Your task to perform on an android device: open the mobile data screen to see how much data has been used Image 0: 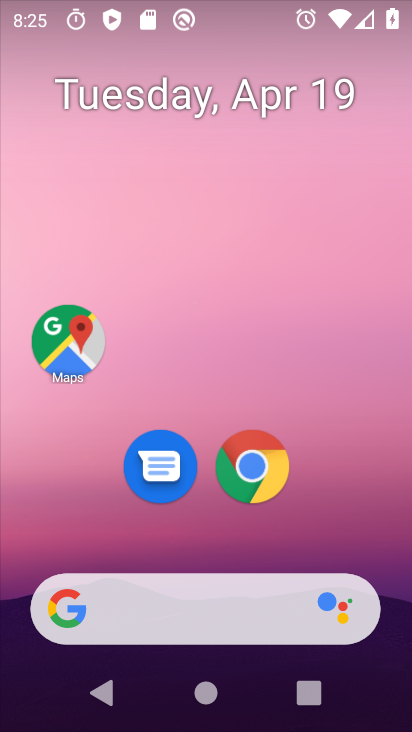
Step 0: click (255, 477)
Your task to perform on an android device: open the mobile data screen to see how much data has been used Image 1: 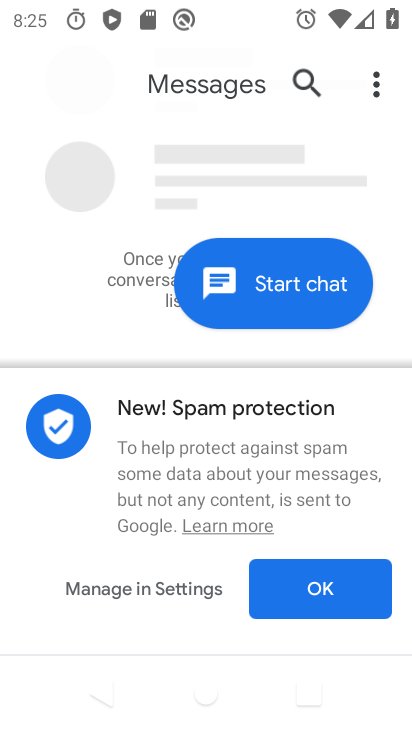
Step 1: press home button
Your task to perform on an android device: open the mobile data screen to see how much data has been used Image 2: 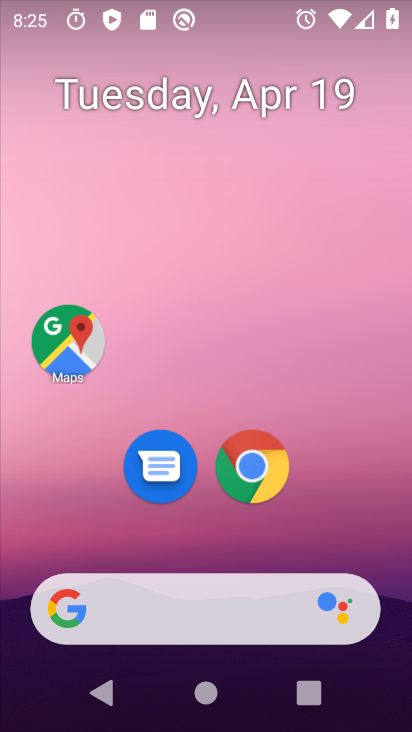
Step 2: click (275, 473)
Your task to perform on an android device: open the mobile data screen to see how much data has been used Image 3: 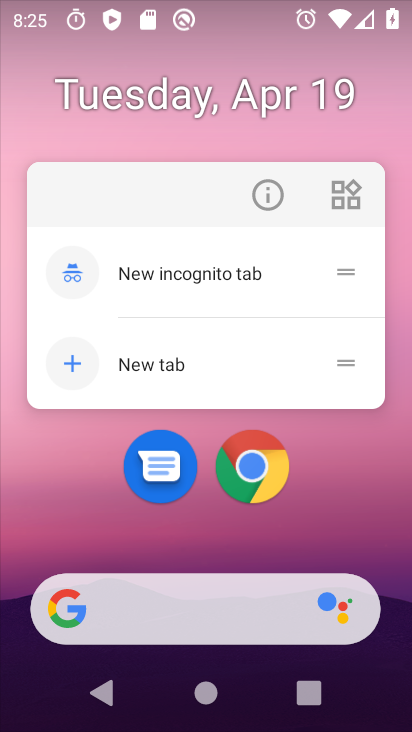
Step 3: click (275, 473)
Your task to perform on an android device: open the mobile data screen to see how much data has been used Image 4: 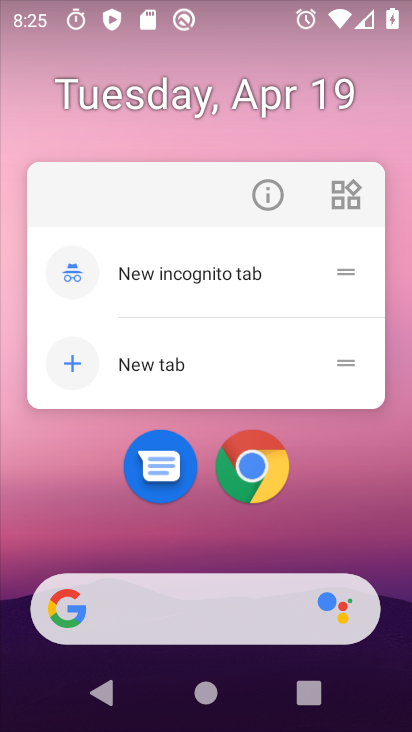
Step 4: click (275, 473)
Your task to perform on an android device: open the mobile data screen to see how much data has been used Image 5: 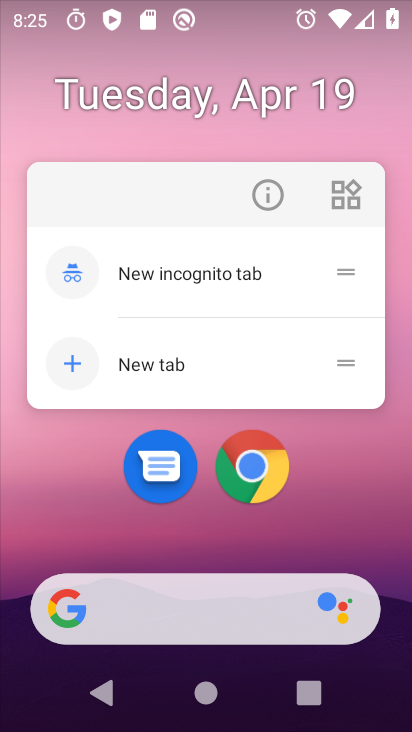
Step 5: click (275, 473)
Your task to perform on an android device: open the mobile data screen to see how much data has been used Image 6: 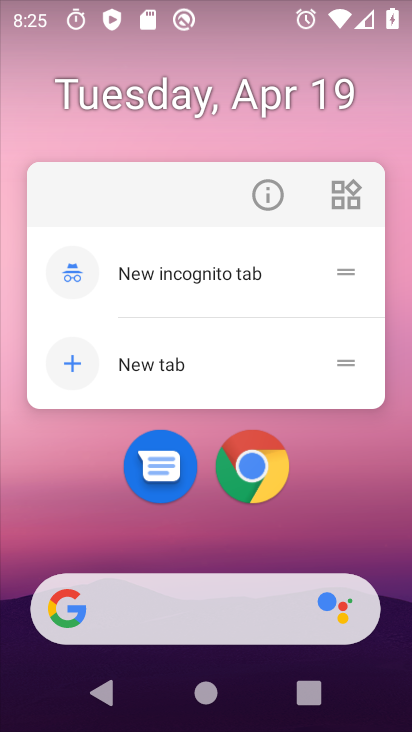
Step 6: click (254, 468)
Your task to perform on an android device: open the mobile data screen to see how much data has been used Image 7: 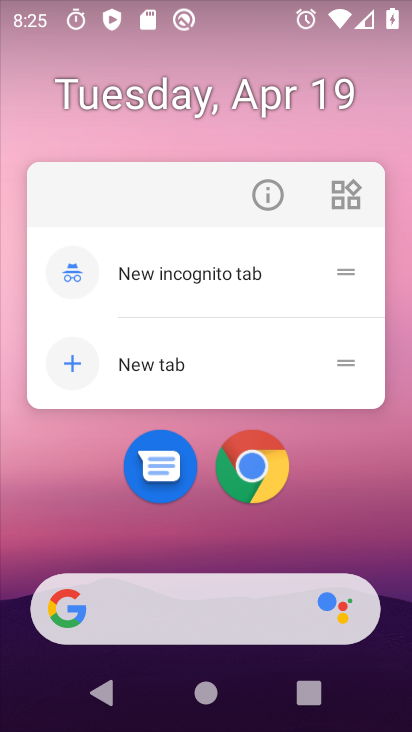
Step 7: click (254, 468)
Your task to perform on an android device: open the mobile data screen to see how much data has been used Image 8: 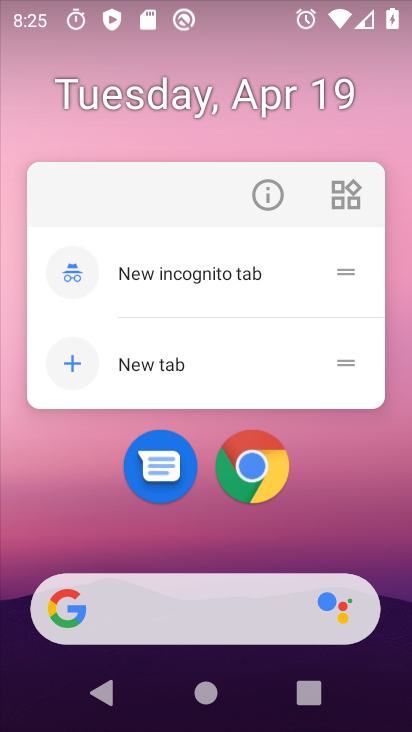
Step 8: click (254, 468)
Your task to perform on an android device: open the mobile data screen to see how much data has been used Image 9: 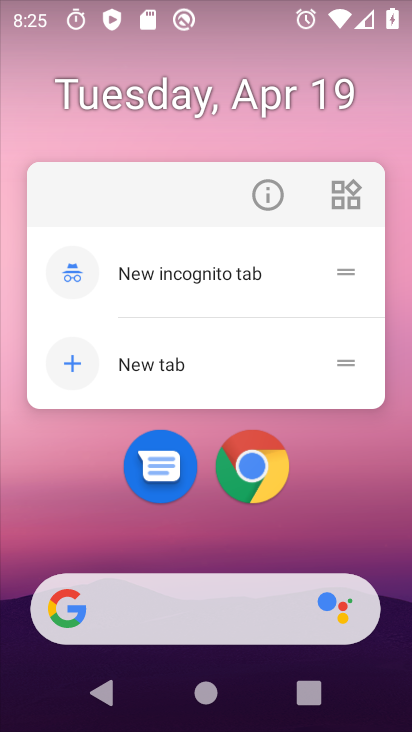
Step 9: click (254, 468)
Your task to perform on an android device: open the mobile data screen to see how much data has been used Image 10: 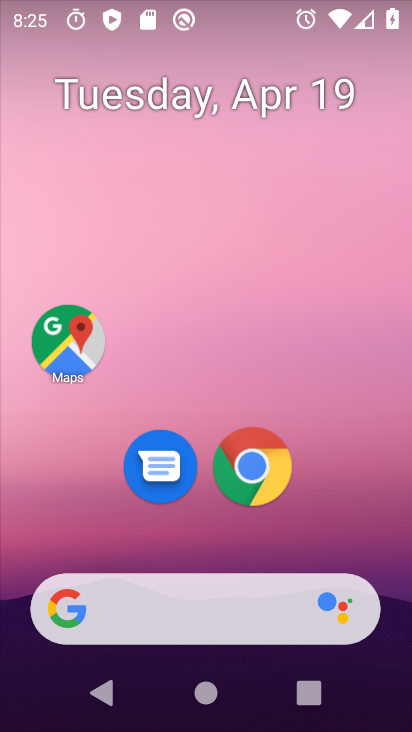
Step 10: click (254, 468)
Your task to perform on an android device: open the mobile data screen to see how much data has been used Image 11: 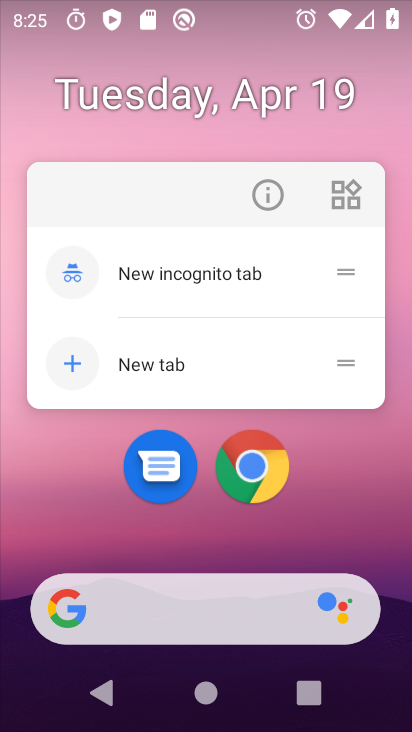
Step 11: click (254, 468)
Your task to perform on an android device: open the mobile data screen to see how much data has been used Image 12: 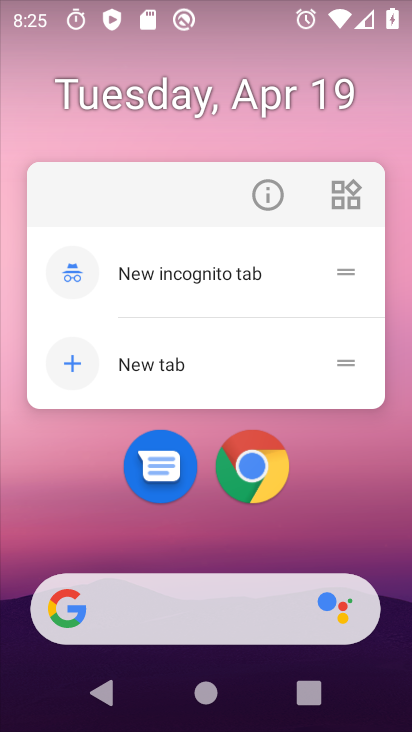
Step 12: click (254, 468)
Your task to perform on an android device: open the mobile data screen to see how much data has been used Image 13: 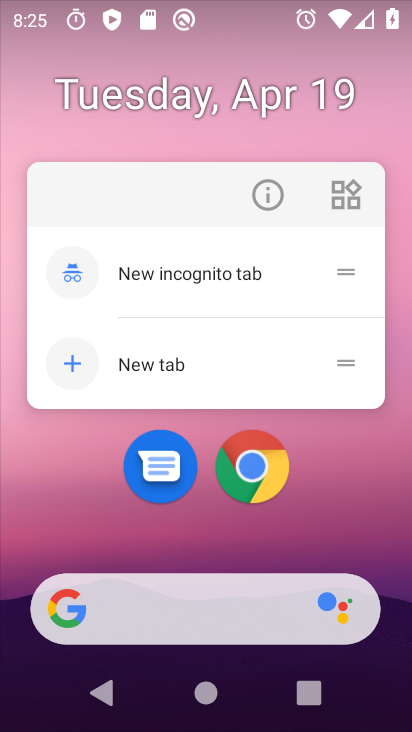
Step 13: click (254, 468)
Your task to perform on an android device: open the mobile data screen to see how much data has been used Image 14: 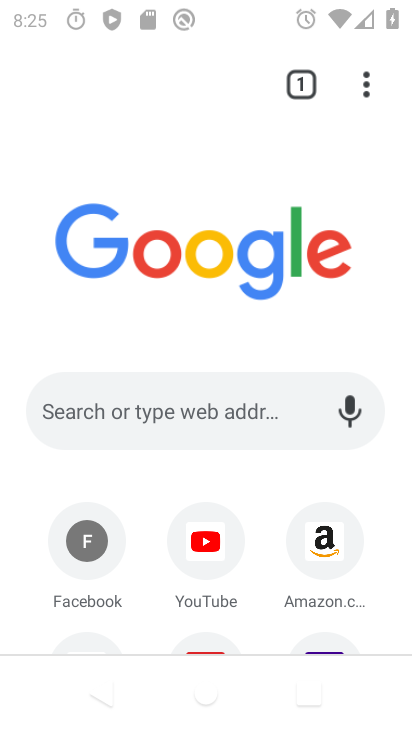
Step 14: click (254, 468)
Your task to perform on an android device: open the mobile data screen to see how much data has been used Image 15: 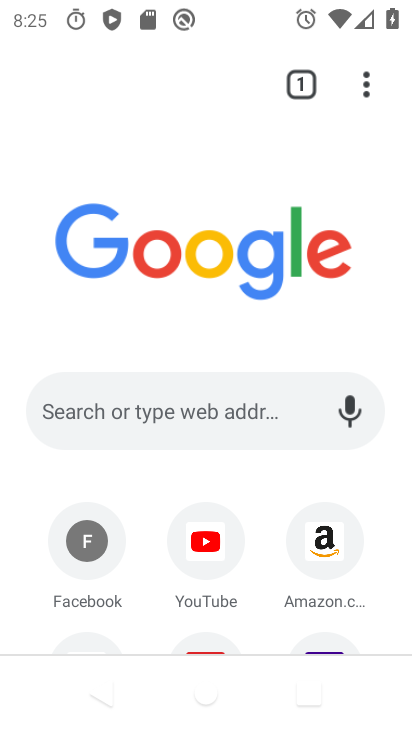
Step 15: press home button
Your task to perform on an android device: open the mobile data screen to see how much data has been used Image 16: 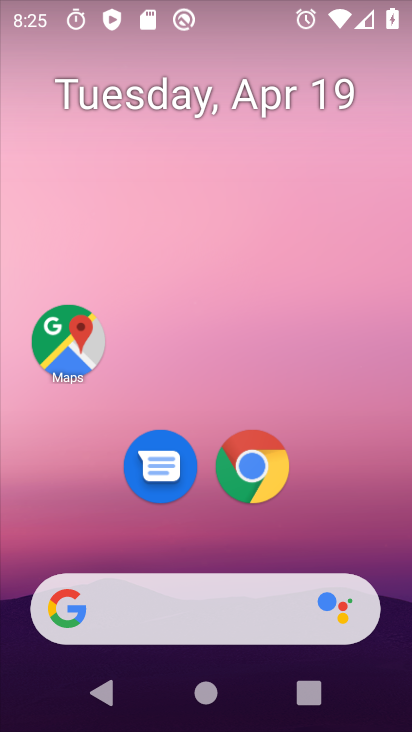
Step 16: drag from (377, 521) to (338, 132)
Your task to perform on an android device: open the mobile data screen to see how much data has been used Image 17: 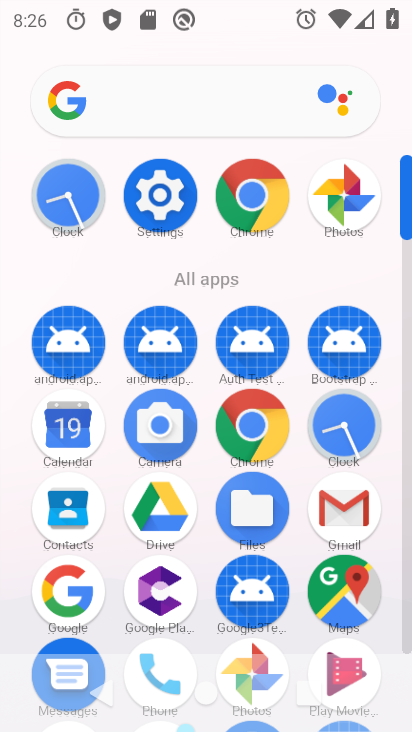
Step 17: click (145, 210)
Your task to perform on an android device: open the mobile data screen to see how much data has been used Image 18: 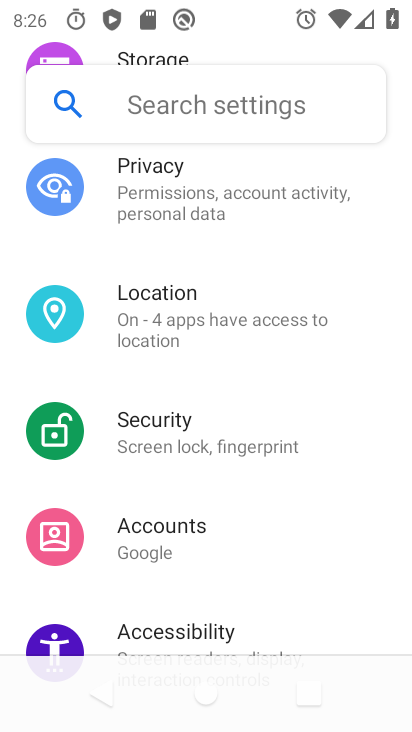
Step 18: drag from (230, 460) to (226, 135)
Your task to perform on an android device: open the mobile data screen to see how much data has been used Image 19: 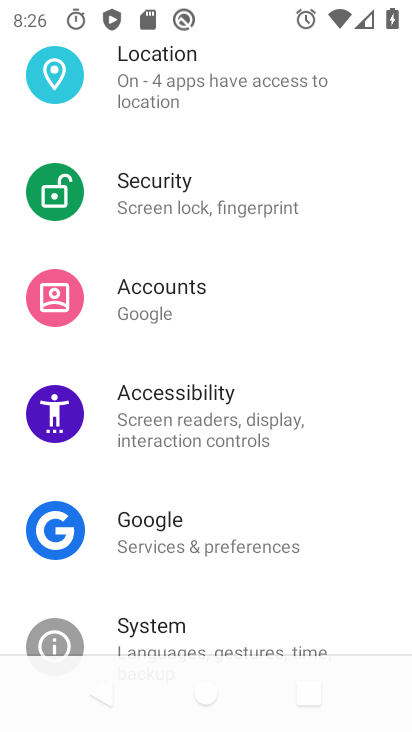
Step 19: drag from (226, 135) to (231, 499)
Your task to perform on an android device: open the mobile data screen to see how much data has been used Image 20: 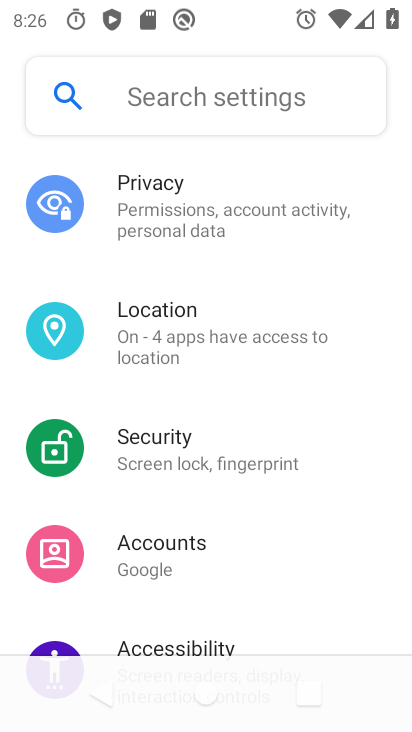
Step 20: drag from (211, 162) to (243, 526)
Your task to perform on an android device: open the mobile data screen to see how much data has been used Image 21: 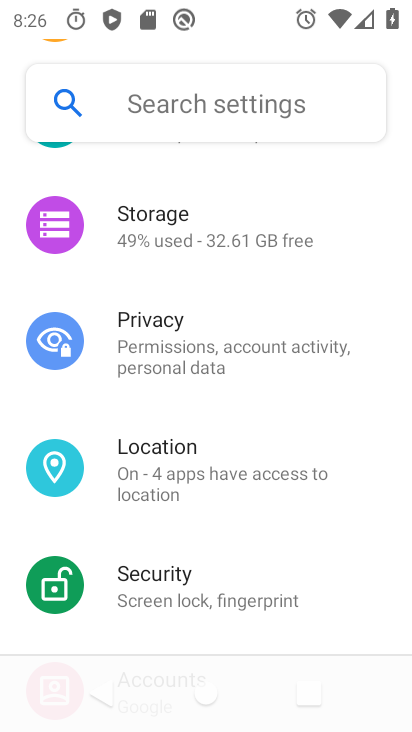
Step 21: drag from (183, 227) to (233, 590)
Your task to perform on an android device: open the mobile data screen to see how much data has been used Image 22: 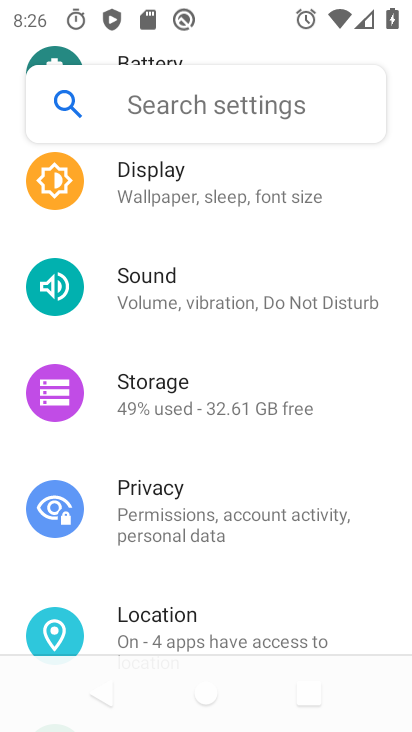
Step 22: drag from (229, 245) to (273, 595)
Your task to perform on an android device: open the mobile data screen to see how much data has been used Image 23: 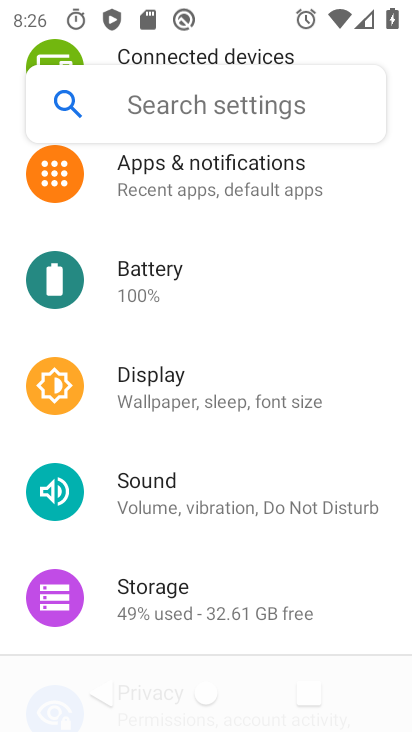
Step 23: drag from (242, 176) to (240, 547)
Your task to perform on an android device: open the mobile data screen to see how much data has been used Image 24: 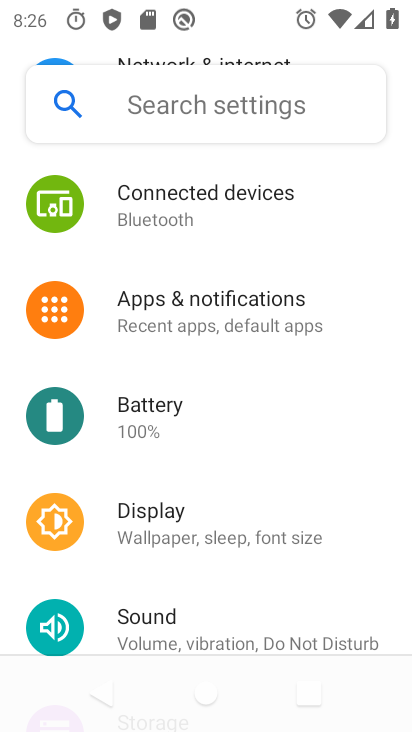
Step 24: drag from (217, 253) to (239, 628)
Your task to perform on an android device: open the mobile data screen to see how much data has been used Image 25: 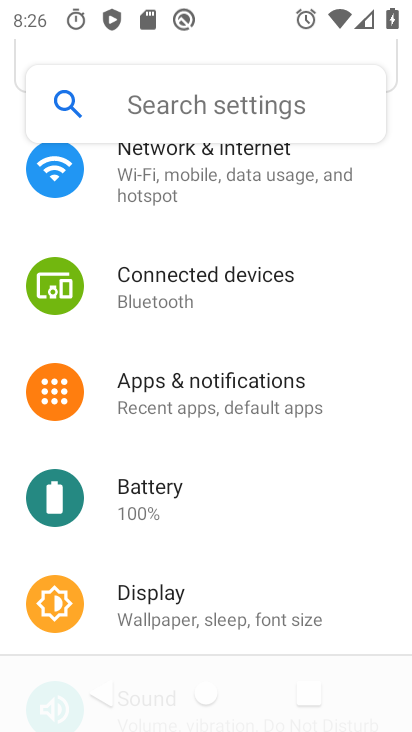
Step 25: drag from (230, 356) to (225, 602)
Your task to perform on an android device: open the mobile data screen to see how much data has been used Image 26: 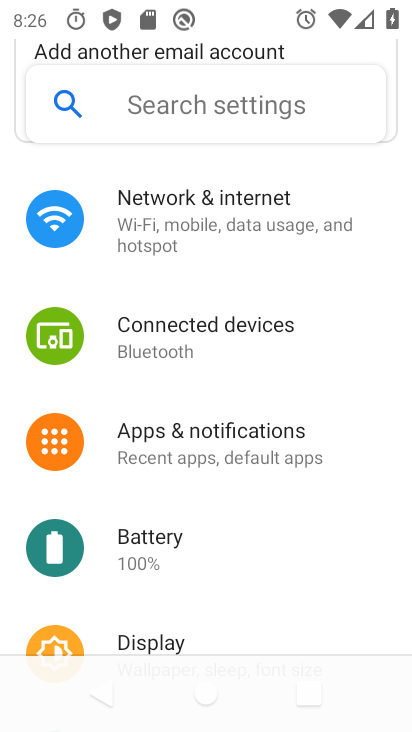
Step 26: drag from (245, 397) to (254, 669)
Your task to perform on an android device: open the mobile data screen to see how much data has been used Image 27: 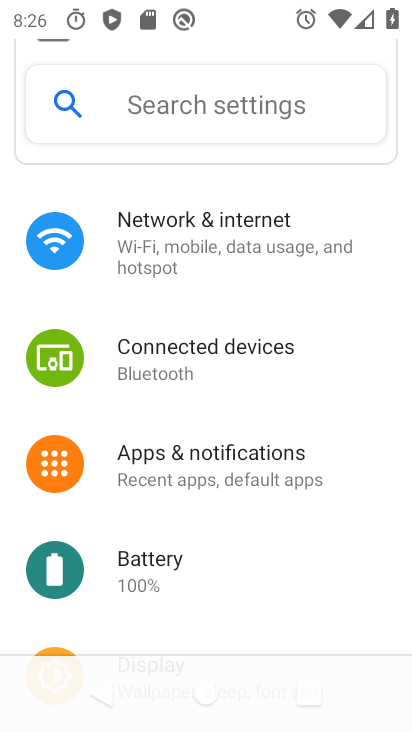
Step 27: click (163, 259)
Your task to perform on an android device: open the mobile data screen to see how much data has been used Image 28: 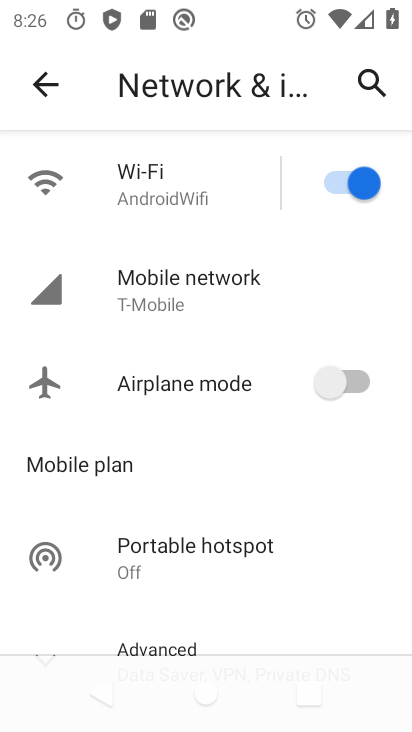
Step 28: click (222, 285)
Your task to perform on an android device: open the mobile data screen to see how much data has been used Image 29: 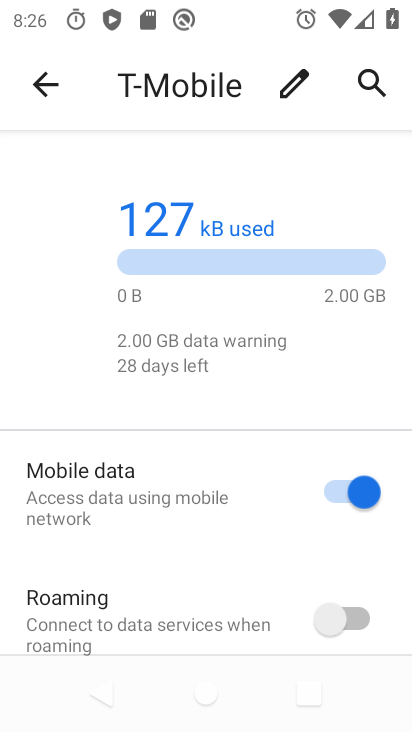
Step 29: task complete